Your task to perform on an android device: uninstall "Skype" Image 0: 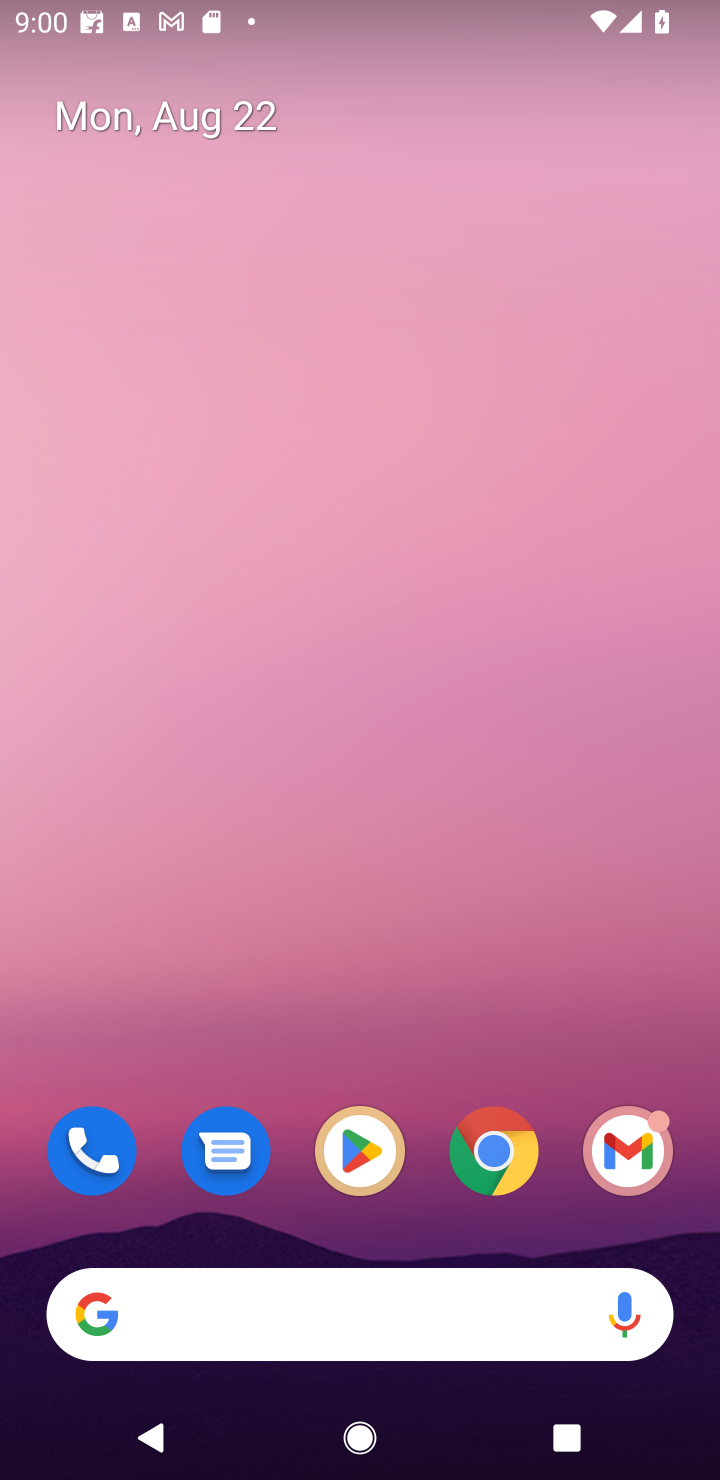
Step 0: press home button
Your task to perform on an android device: uninstall "Skype" Image 1: 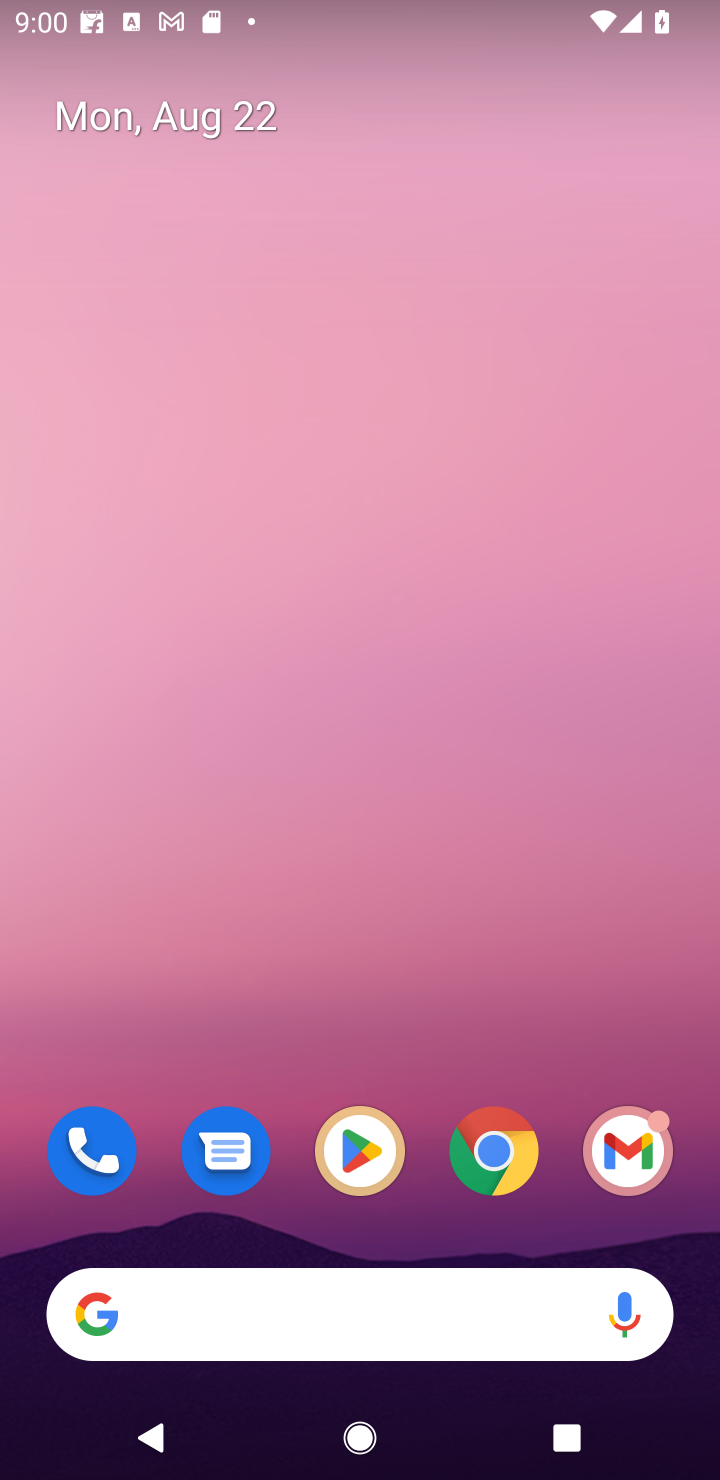
Step 1: click (350, 1155)
Your task to perform on an android device: uninstall "Skype" Image 2: 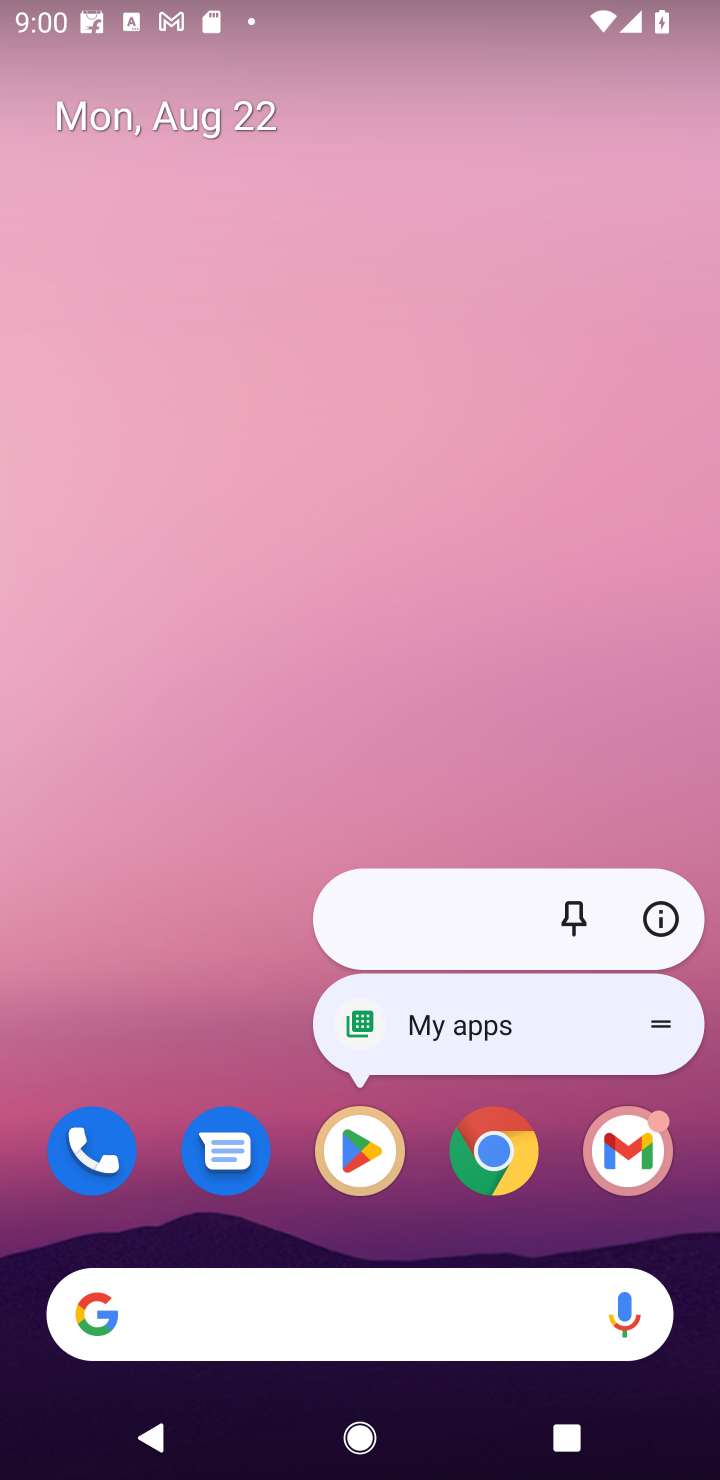
Step 2: click (353, 1158)
Your task to perform on an android device: uninstall "Skype" Image 3: 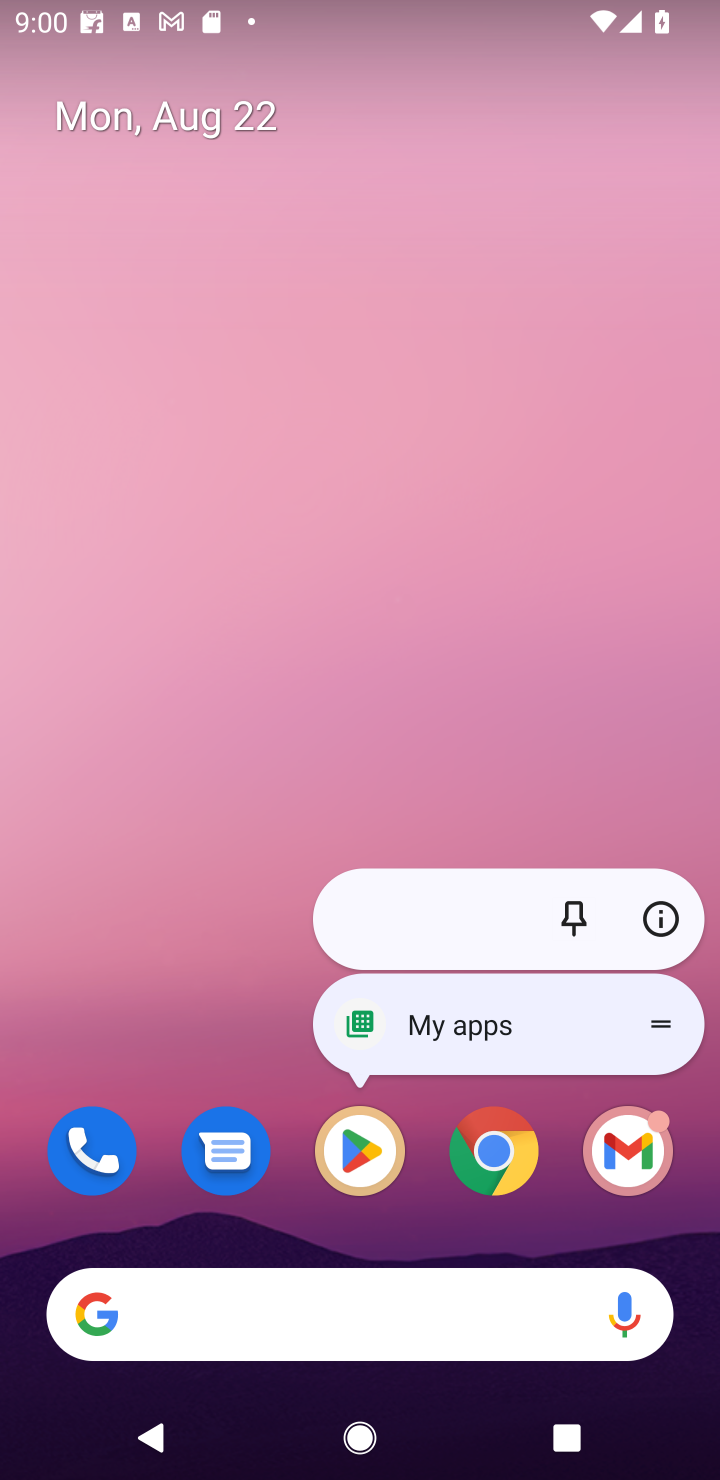
Step 3: click (353, 1164)
Your task to perform on an android device: uninstall "Skype" Image 4: 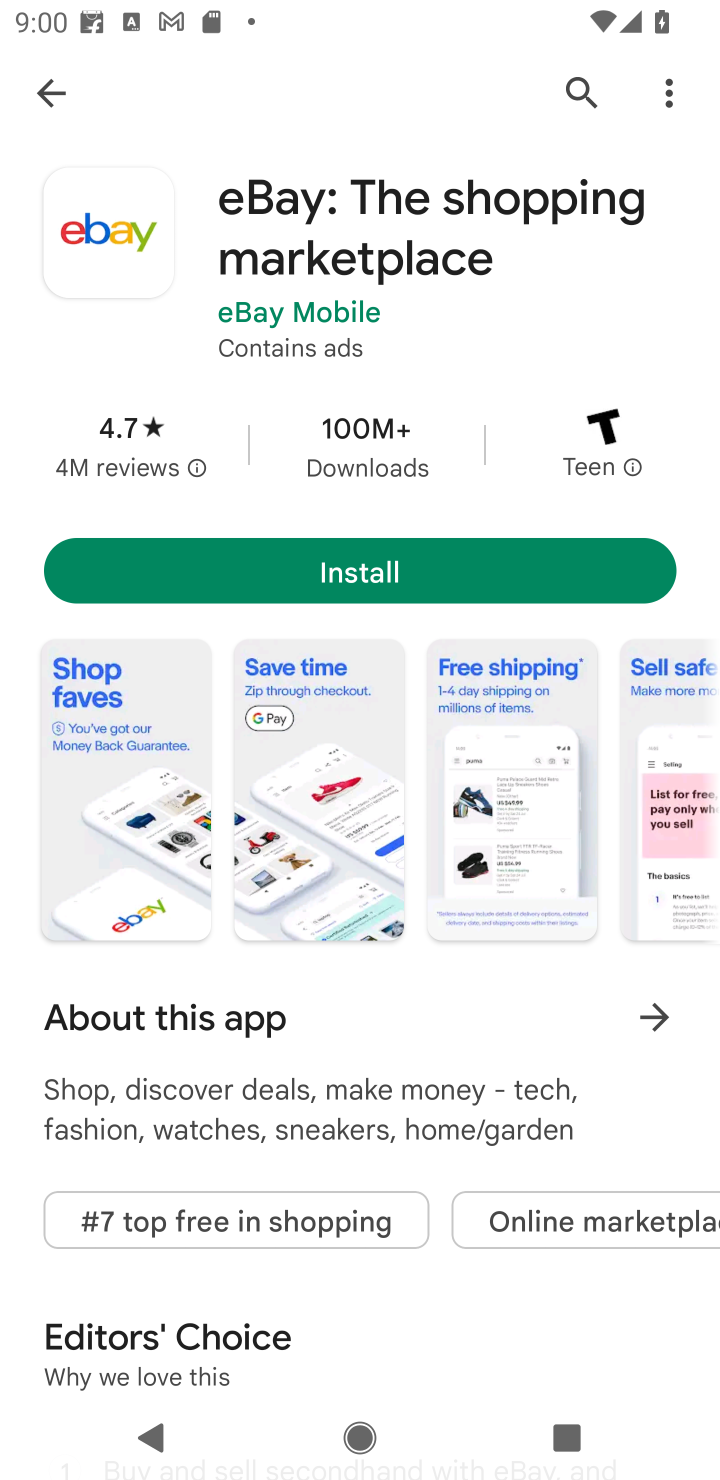
Step 4: click (601, 79)
Your task to perform on an android device: uninstall "Skype" Image 5: 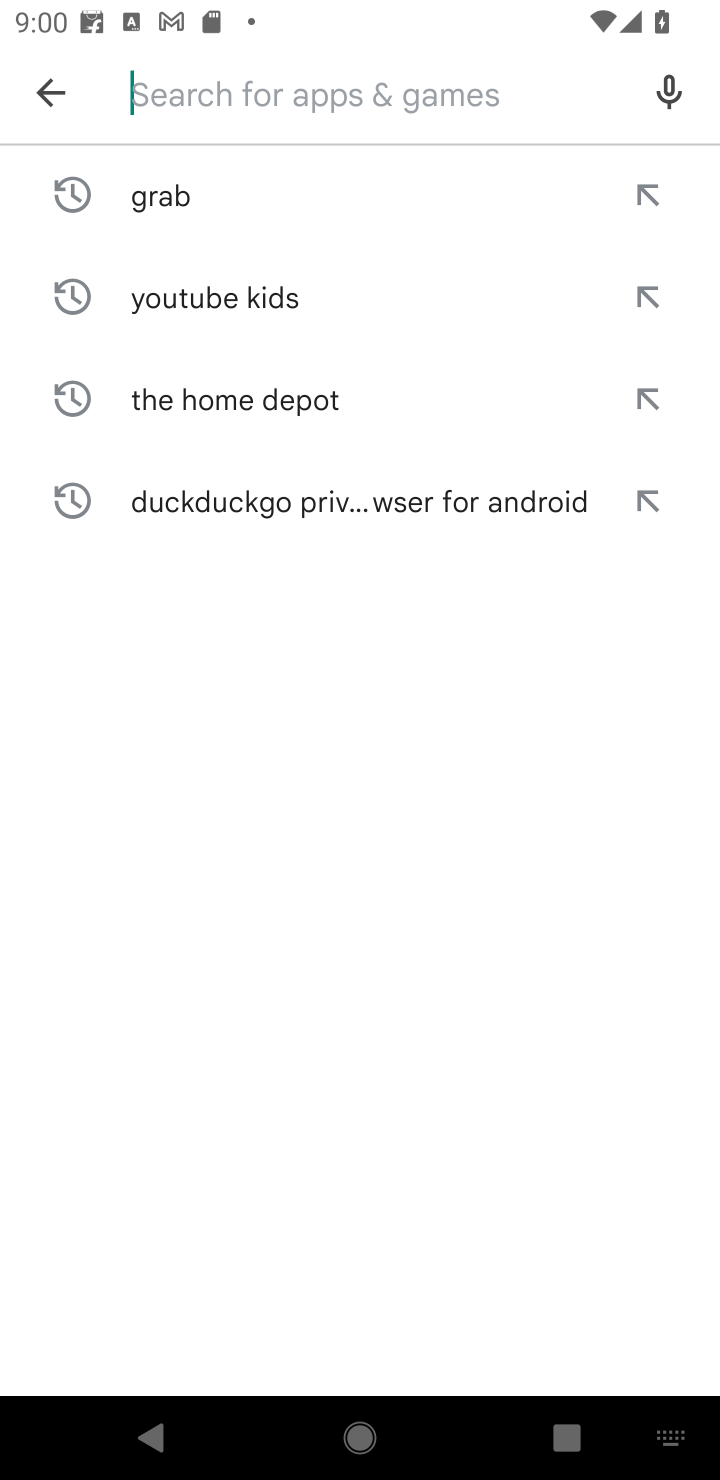
Step 5: type "Skype"
Your task to perform on an android device: uninstall "Skype" Image 6: 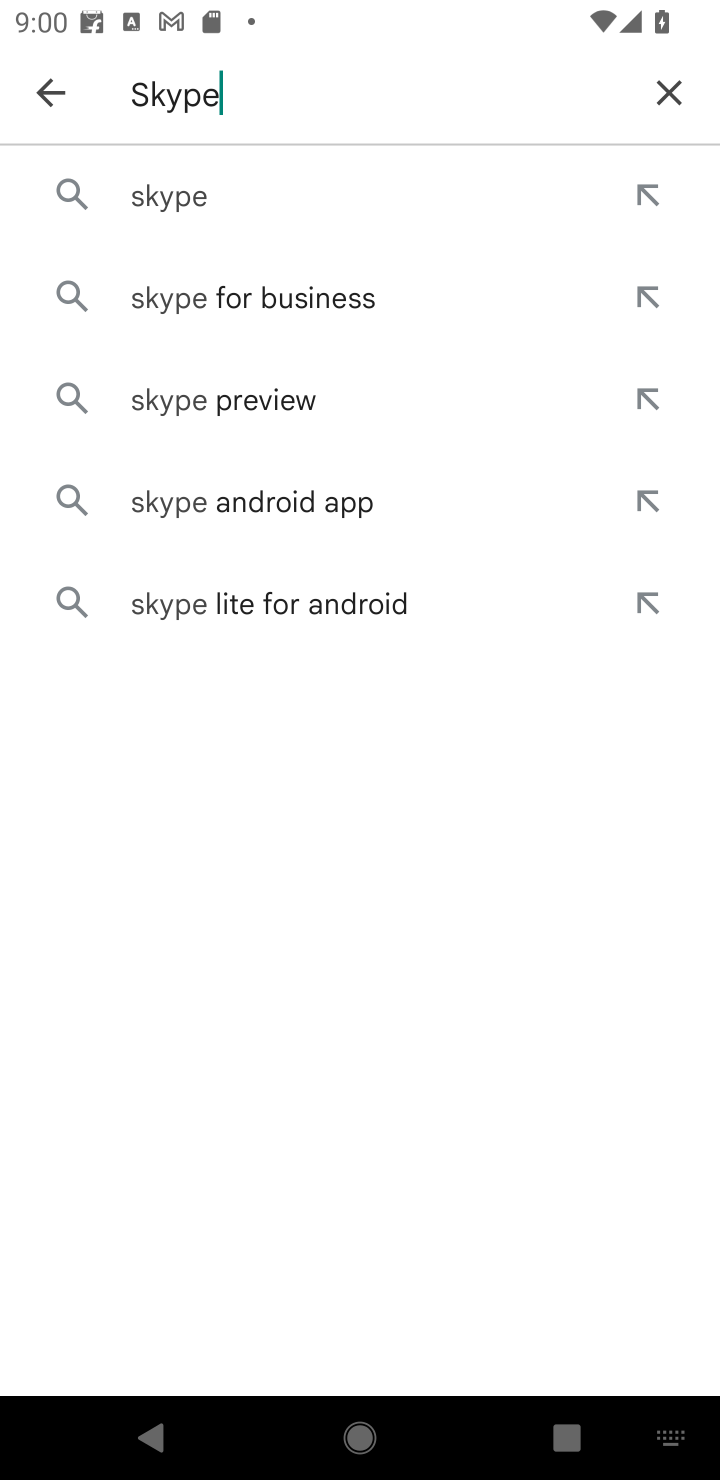
Step 6: click (172, 194)
Your task to perform on an android device: uninstall "Skype" Image 7: 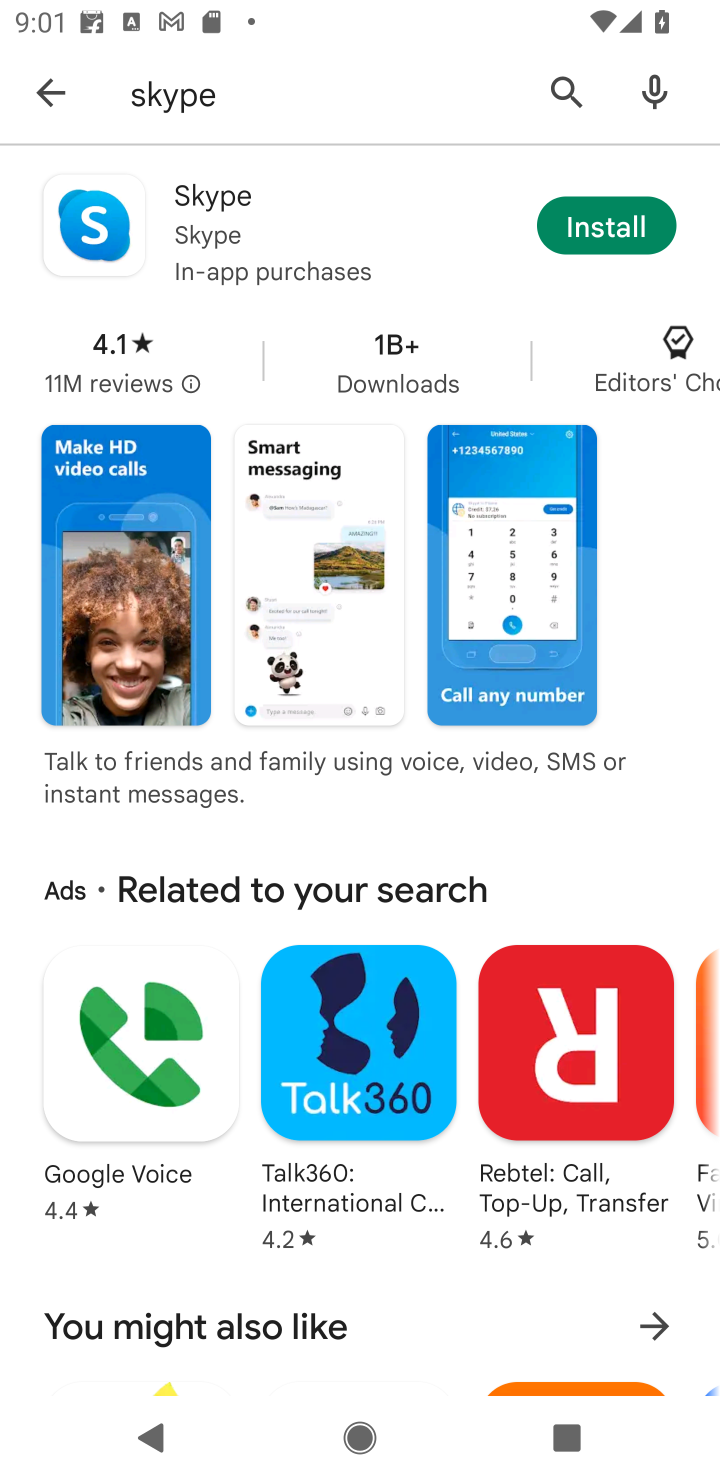
Step 7: task complete